Your task to perform on an android device: Open the calendar and show me this week's events? Image 0: 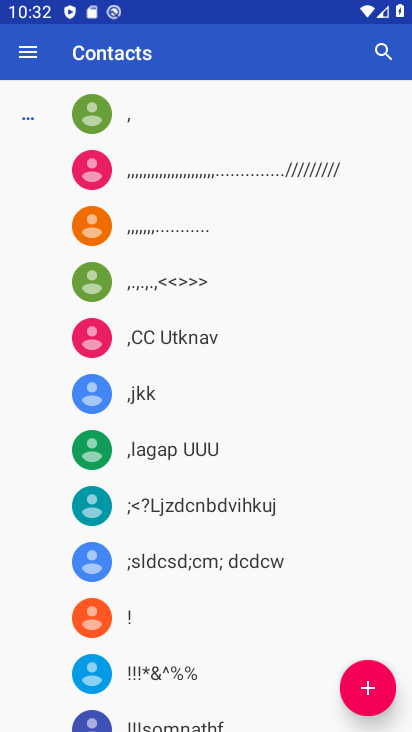
Step 0: press home button
Your task to perform on an android device: Open the calendar and show me this week's events? Image 1: 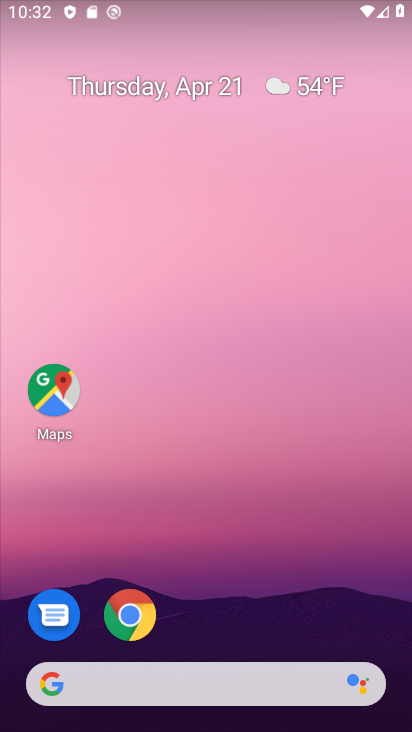
Step 1: drag from (257, 608) to (277, 273)
Your task to perform on an android device: Open the calendar and show me this week's events? Image 2: 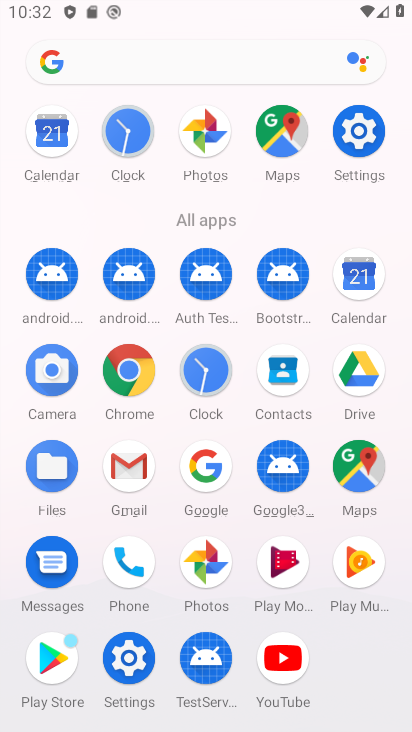
Step 2: click (353, 264)
Your task to perform on an android device: Open the calendar and show me this week's events? Image 3: 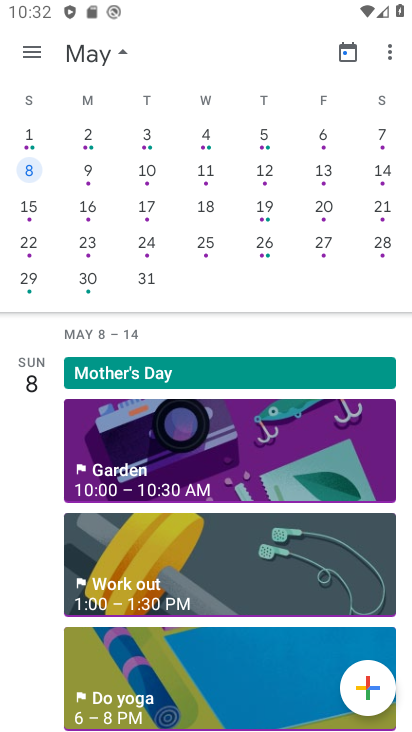
Step 3: drag from (92, 250) to (406, 271)
Your task to perform on an android device: Open the calendar and show me this week's events? Image 4: 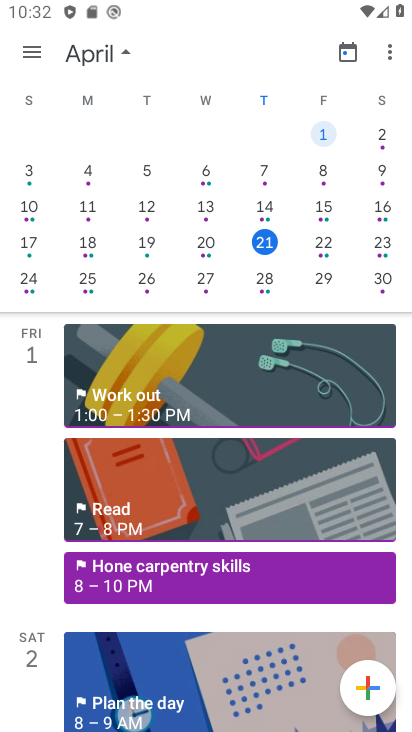
Step 4: click (319, 245)
Your task to perform on an android device: Open the calendar and show me this week's events? Image 5: 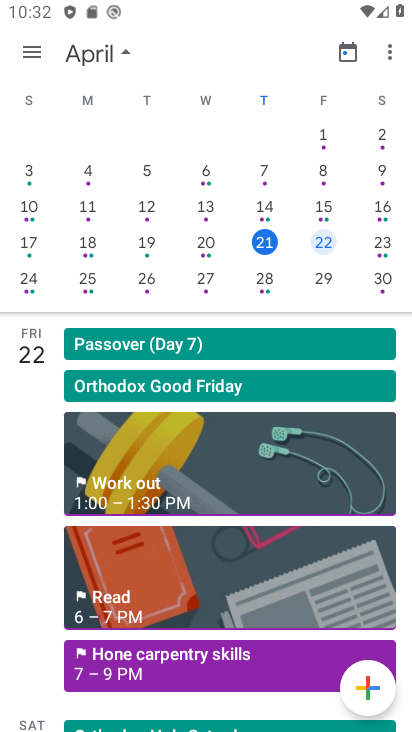
Step 5: click (382, 245)
Your task to perform on an android device: Open the calendar and show me this week's events? Image 6: 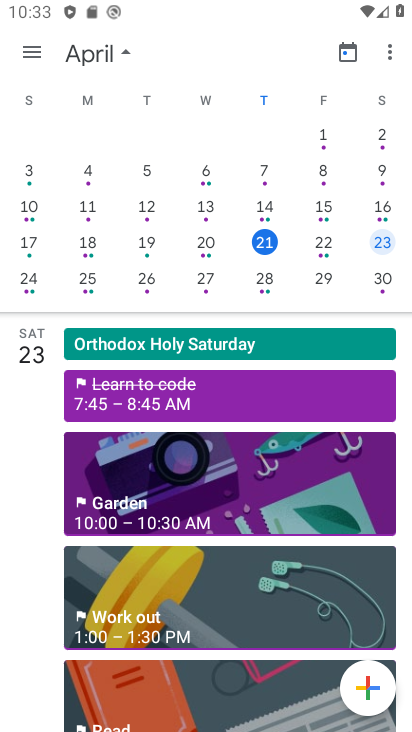
Step 6: task complete